Your task to perform on an android device: What's a good restaurant in Dallas? Image 0: 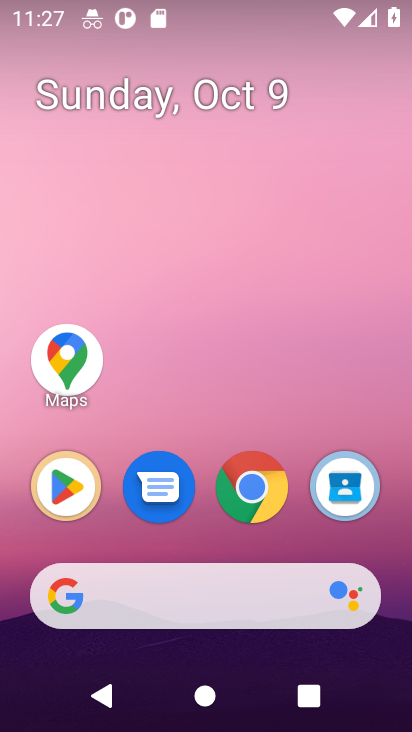
Step 0: click (250, 495)
Your task to perform on an android device: What's a good restaurant in Dallas? Image 1: 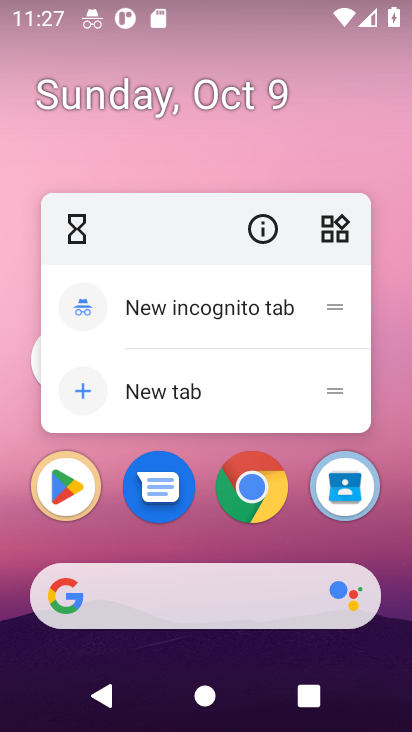
Step 1: click (258, 501)
Your task to perform on an android device: What's a good restaurant in Dallas? Image 2: 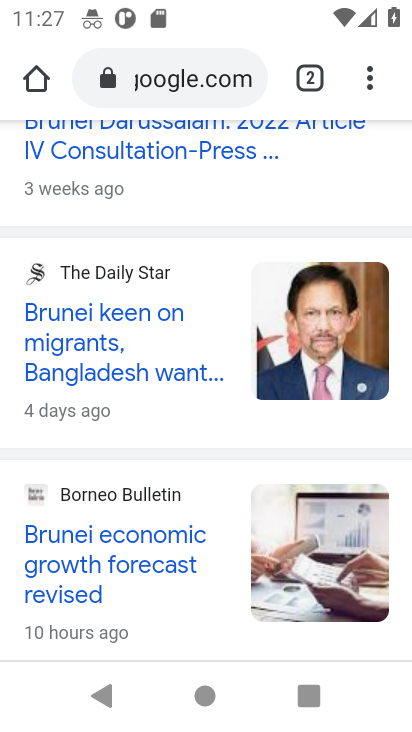
Step 2: click (212, 78)
Your task to perform on an android device: What's a good restaurant in Dallas? Image 3: 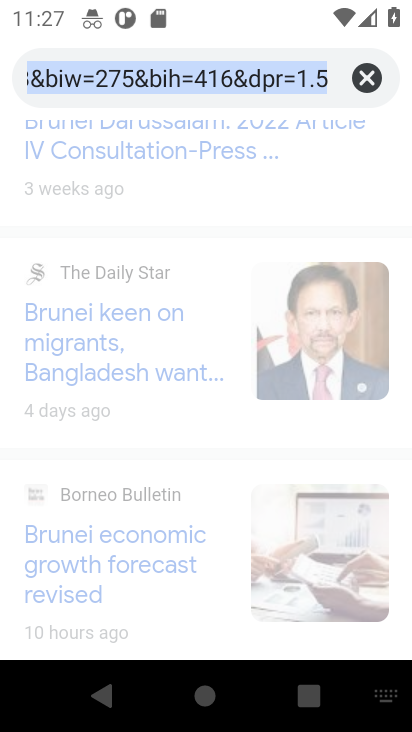
Step 3: type "good restaurant in Dallas"
Your task to perform on an android device: What's a good restaurant in Dallas? Image 4: 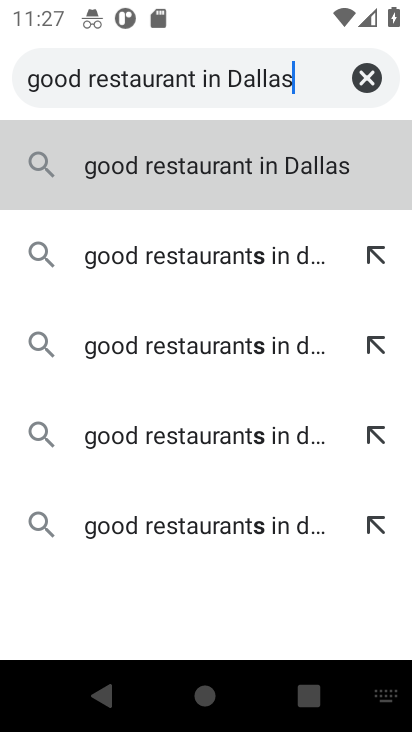
Step 4: type ""
Your task to perform on an android device: What's a good restaurant in Dallas? Image 5: 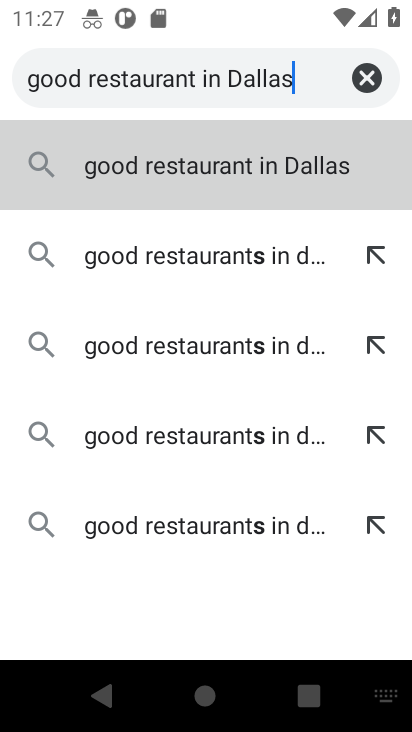
Step 5: press enter
Your task to perform on an android device: What's a good restaurant in Dallas? Image 6: 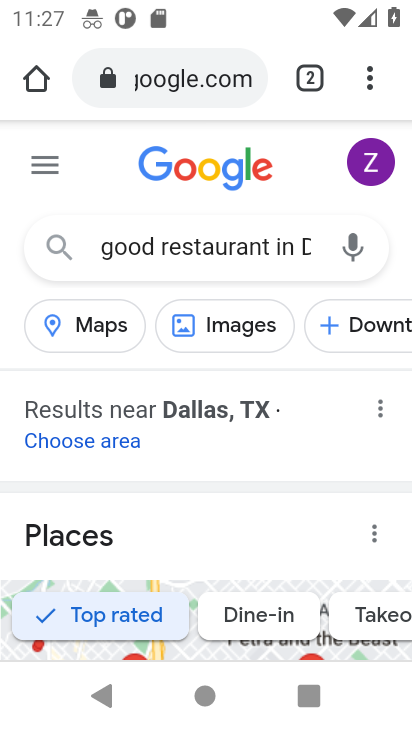
Step 6: drag from (272, 564) to (231, 179)
Your task to perform on an android device: What's a good restaurant in Dallas? Image 7: 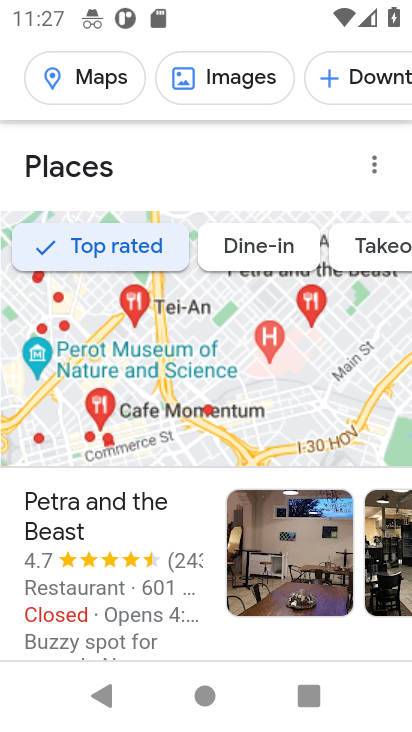
Step 7: drag from (189, 541) to (194, 147)
Your task to perform on an android device: What's a good restaurant in Dallas? Image 8: 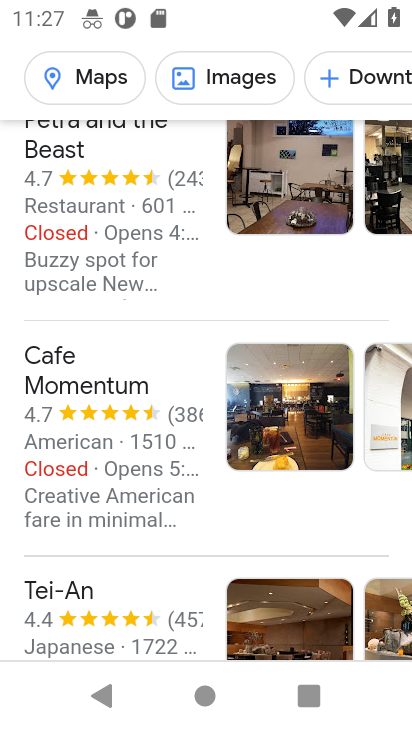
Step 8: drag from (174, 501) to (180, 212)
Your task to perform on an android device: What's a good restaurant in Dallas? Image 9: 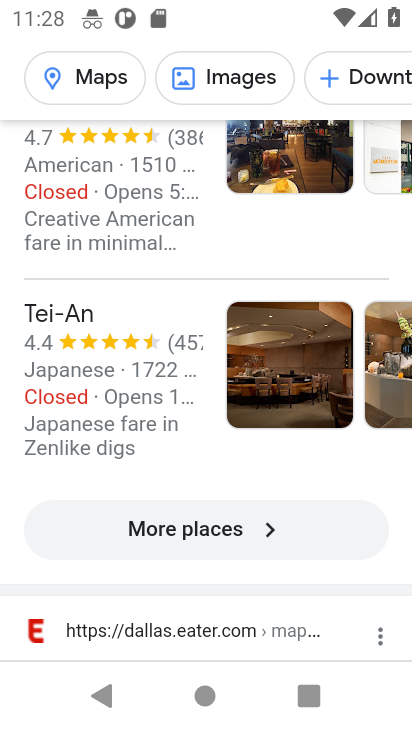
Step 9: click (203, 524)
Your task to perform on an android device: What's a good restaurant in Dallas? Image 10: 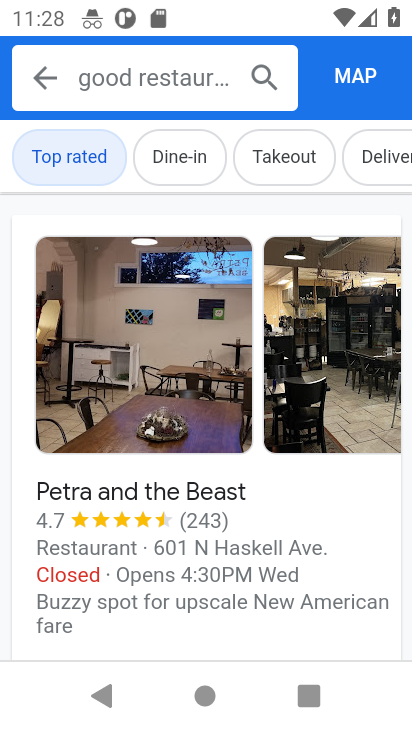
Step 10: task complete